Your task to perform on an android device: Open Google Image 0: 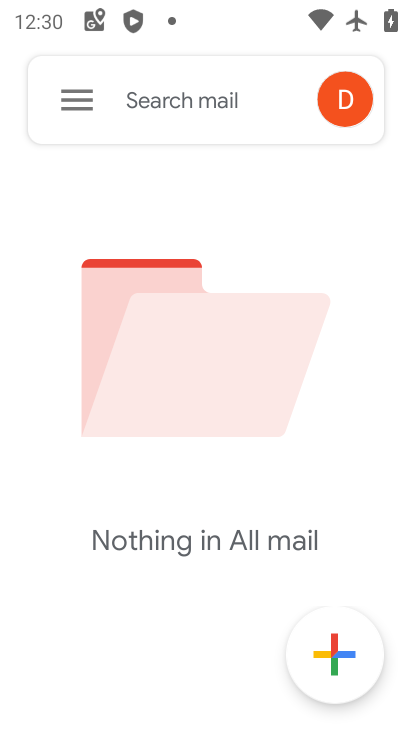
Step 0: press home button
Your task to perform on an android device: Open Google Image 1: 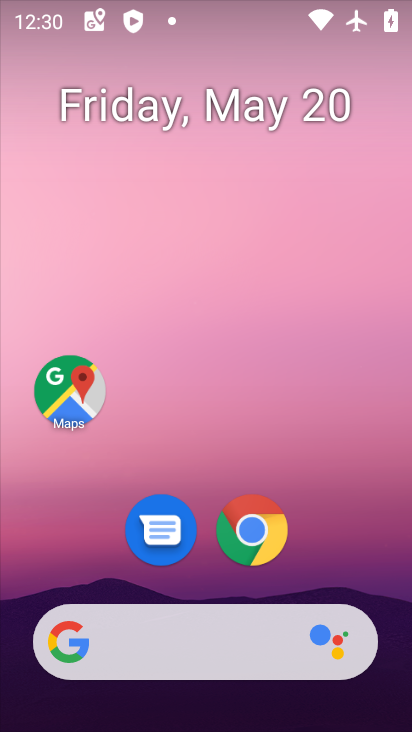
Step 1: drag from (162, 659) to (183, 195)
Your task to perform on an android device: Open Google Image 2: 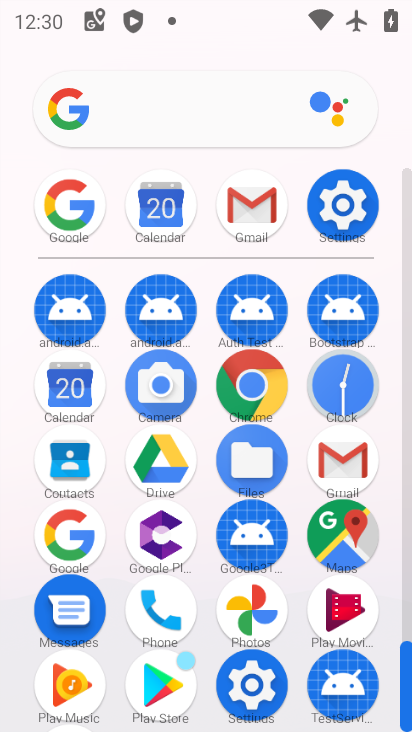
Step 2: click (65, 206)
Your task to perform on an android device: Open Google Image 3: 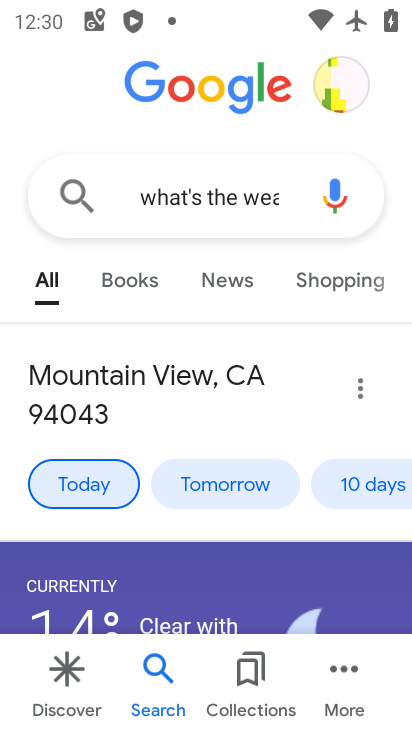
Step 3: task complete